Your task to perform on an android device: Open wifi settings Image 0: 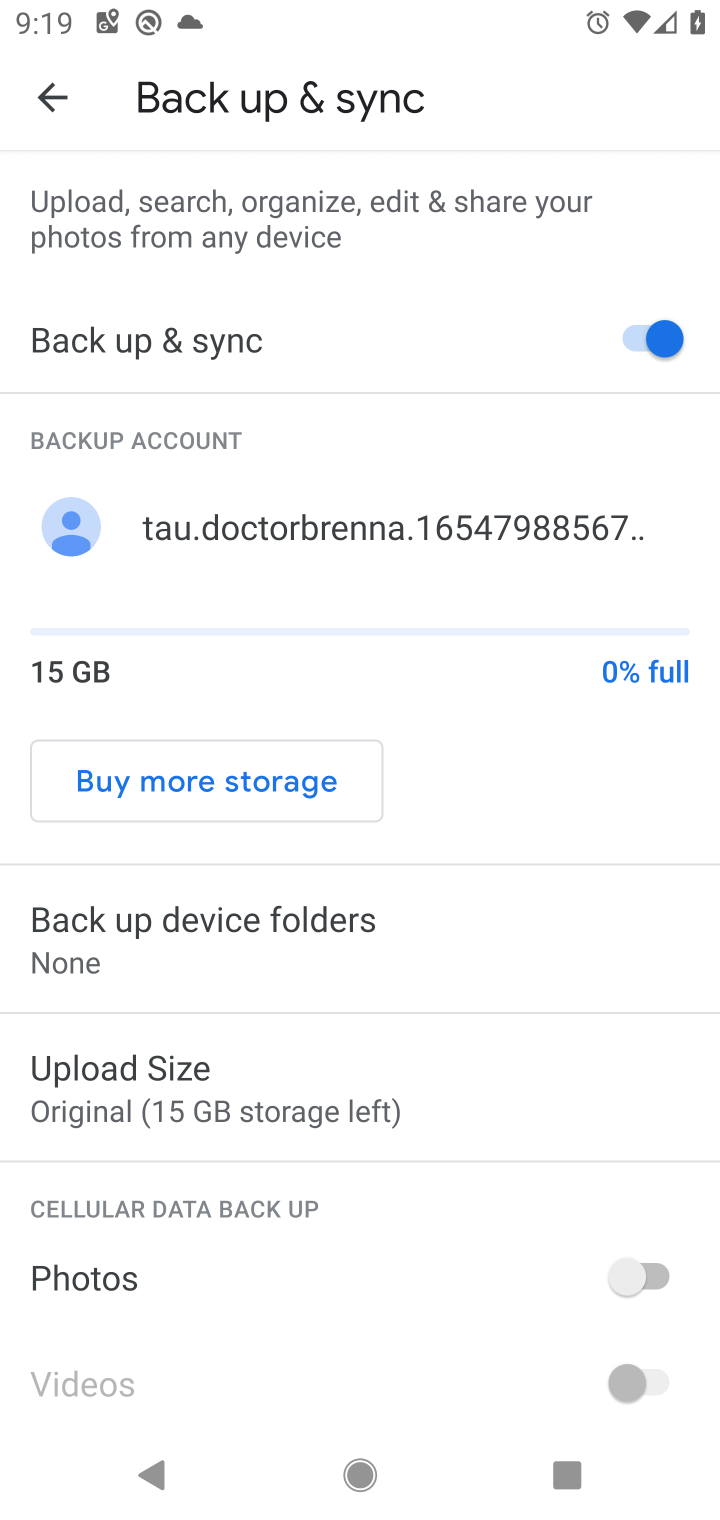
Step 0: press home button
Your task to perform on an android device: Open wifi settings Image 1: 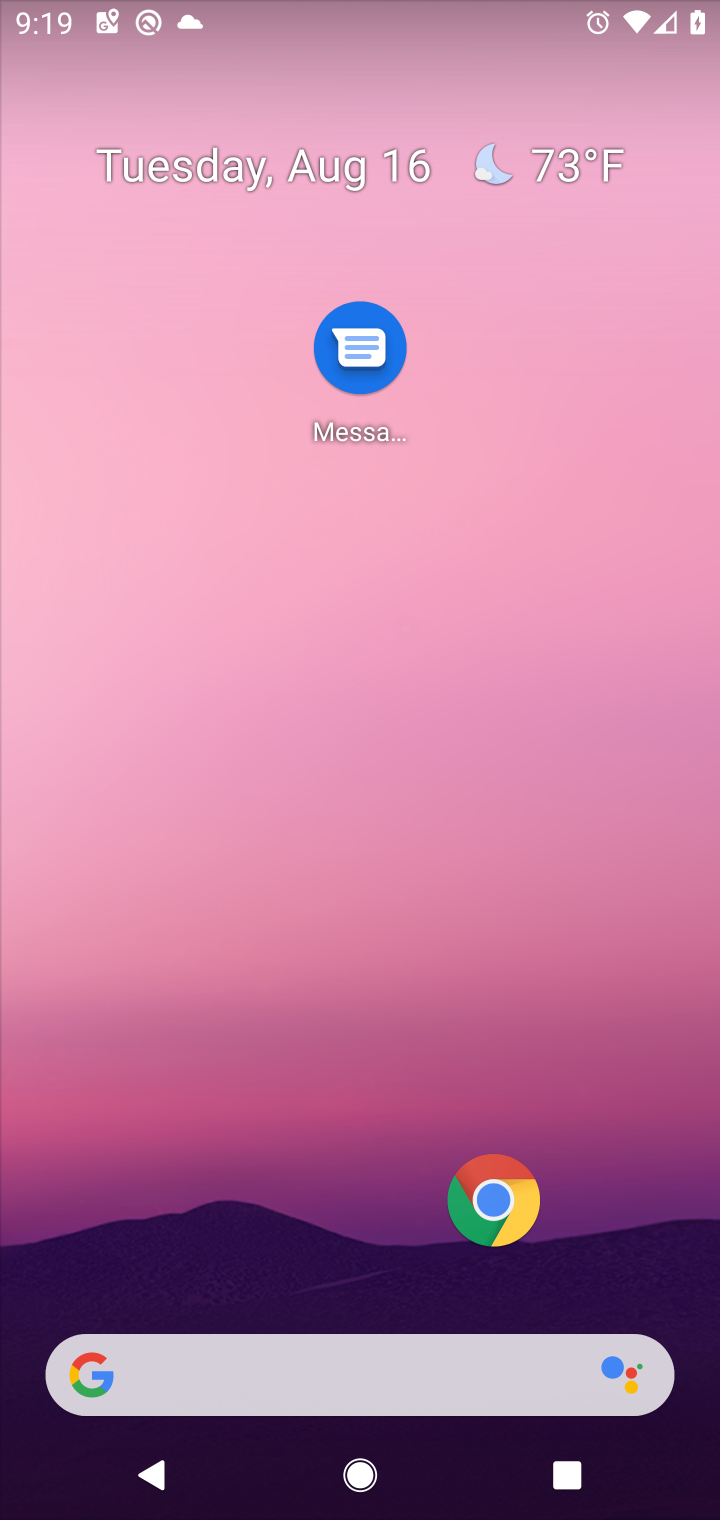
Step 1: task complete